Your task to perform on an android device: Open the Play Movies app and select the watchlist tab. Image 0: 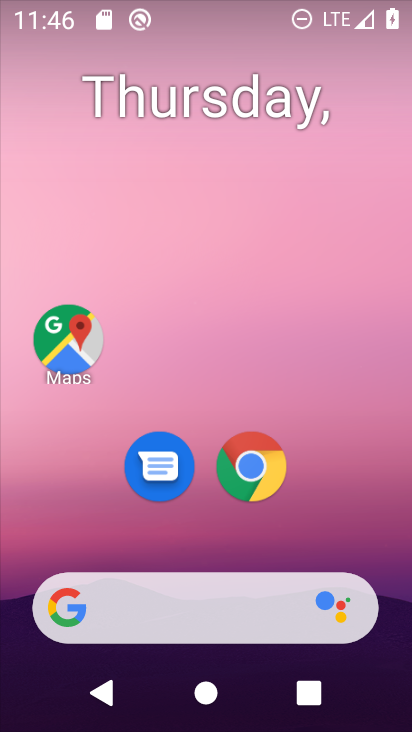
Step 0: drag from (122, 618) to (269, 162)
Your task to perform on an android device: Open the Play Movies app and select the watchlist tab. Image 1: 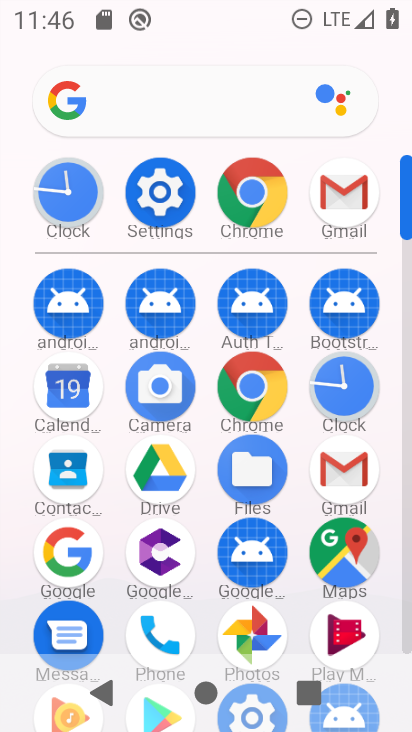
Step 1: click (346, 643)
Your task to perform on an android device: Open the Play Movies app and select the watchlist tab. Image 2: 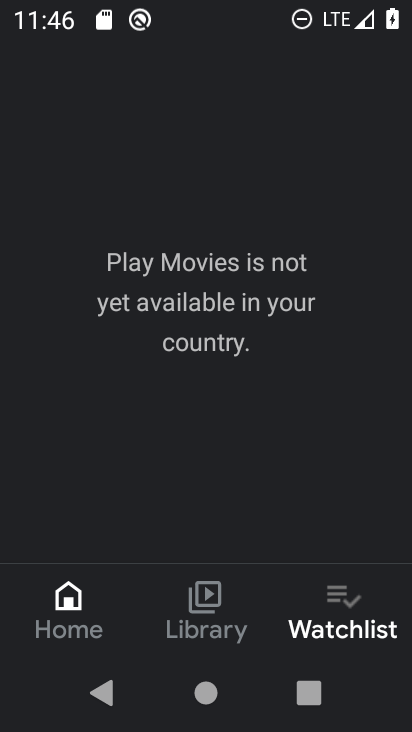
Step 2: task complete